Your task to perform on an android device: Go to Wikipedia Image 0: 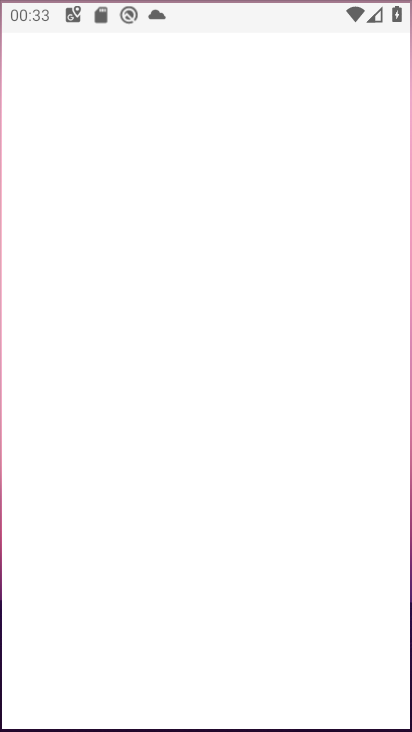
Step 0: drag from (329, 604) to (290, 115)
Your task to perform on an android device: Go to Wikipedia Image 1: 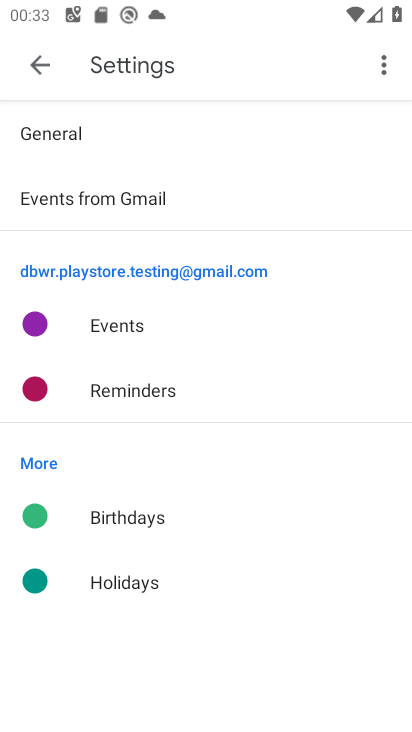
Step 1: press home button
Your task to perform on an android device: Go to Wikipedia Image 2: 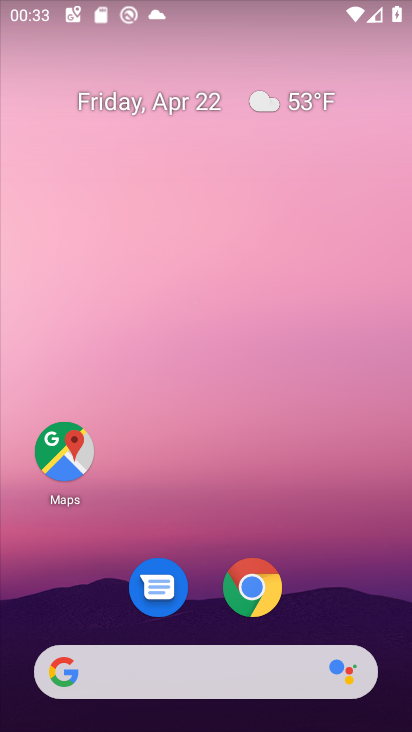
Step 2: click (268, 600)
Your task to perform on an android device: Go to Wikipedia Image 3: 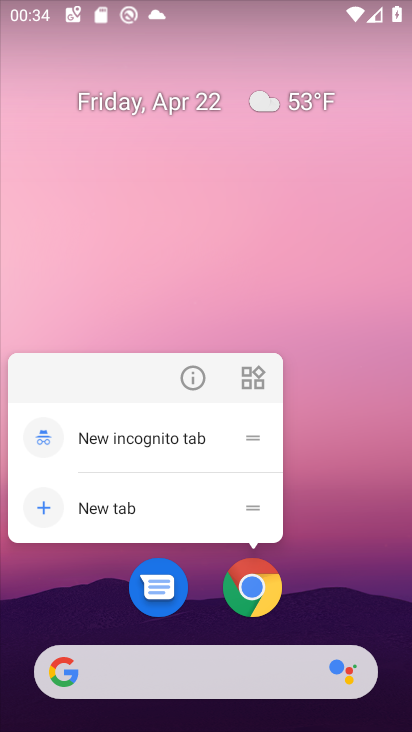
Step 3: click (259, 595)
Your task to perform on an android device: Go to Wikipedia Image 4: 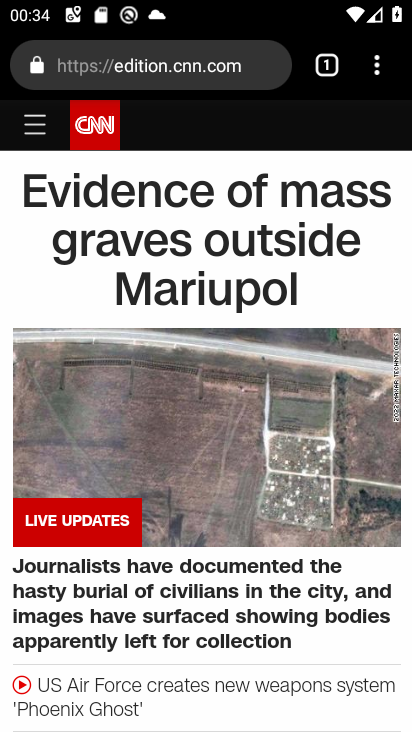
Step 4: click (113, 71)
Your task to perform on an android device: Go to Wikipedia Image 5: 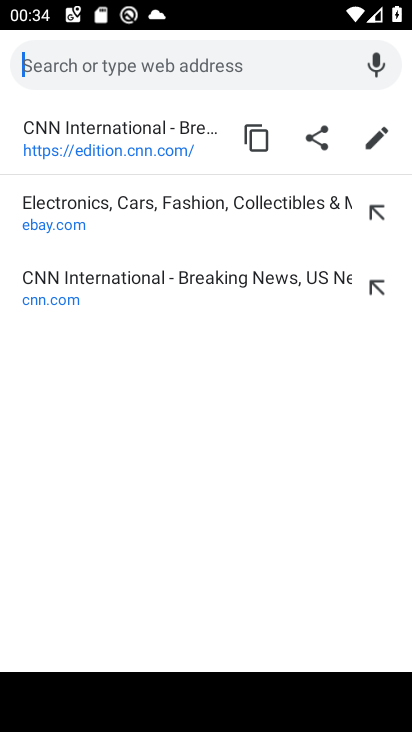
Step 5: type "wikipedia"
Your task to perform on an android device: Go to Wikipedia Image 6: 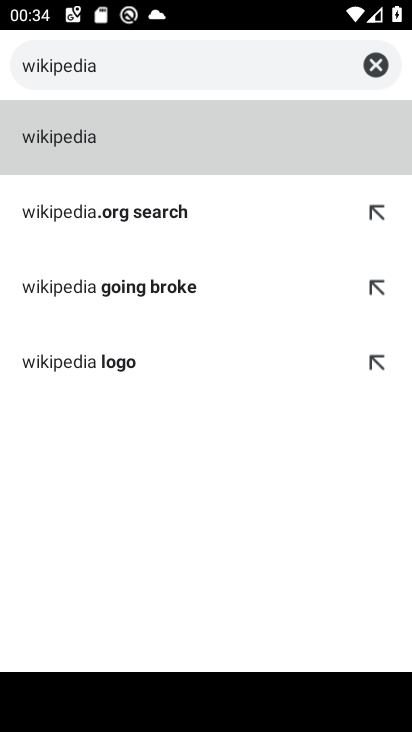
Step 6: click (60, 144)
Your task to perform on an android device: Go to Wikipedia Image 7: 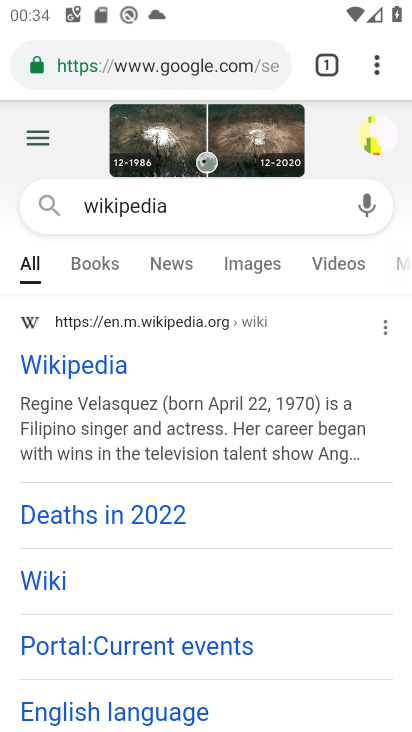
Step 7: task complete